Your task to perform on an android device: turn on improve location accuracy Image 0: 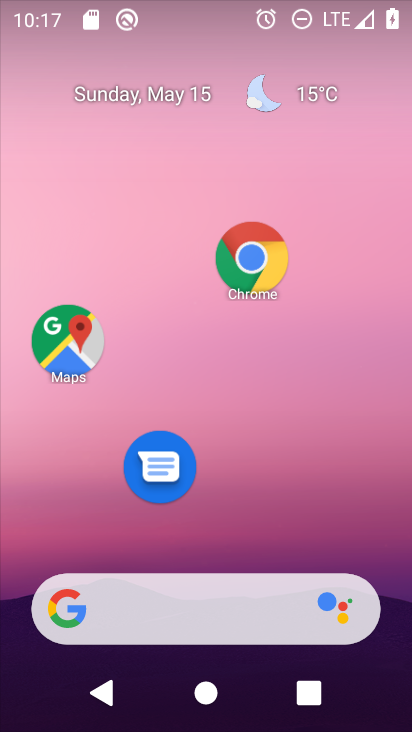
Step 0: drag from (236, 526) to (298, 25)
Your task to perform on an android device: turn on improve location accuracy Image 1: 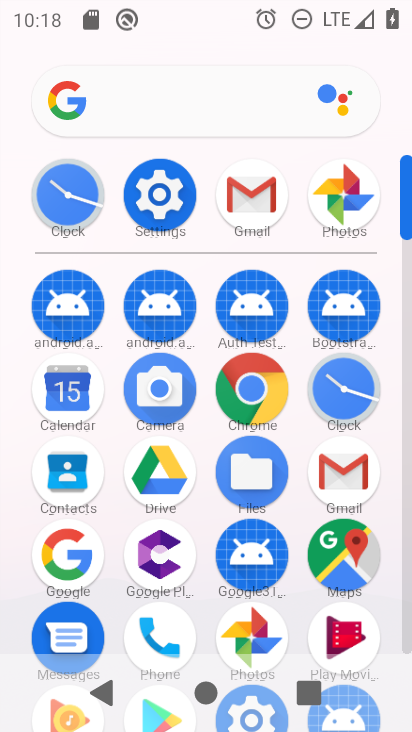
Step 1: click (140, 173)
Your task to perform on an android device: turn on improve location accuracy Image 2: 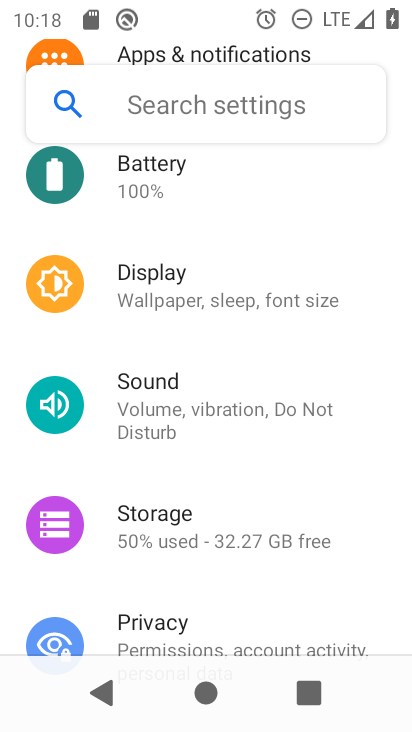
Step 2: drag from (229, 459) to (255, 232)
Your task to perform on an android device: turn on improve location accuracy Image 3: 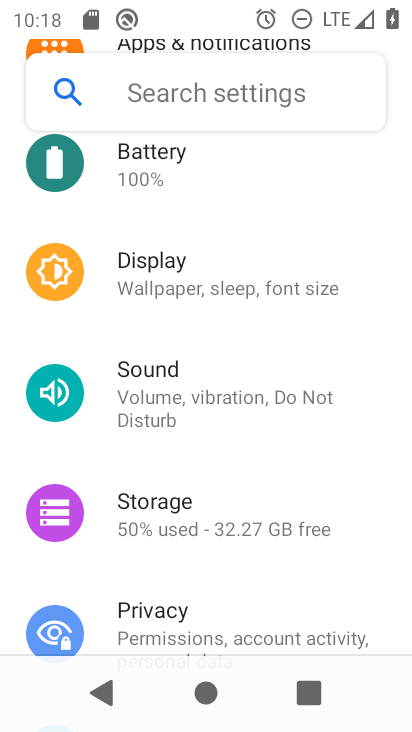
Step 3: drag from (156, 573) to (232, 195)
Your task to perform on an android device: turn on improve location accuracy Image 4: 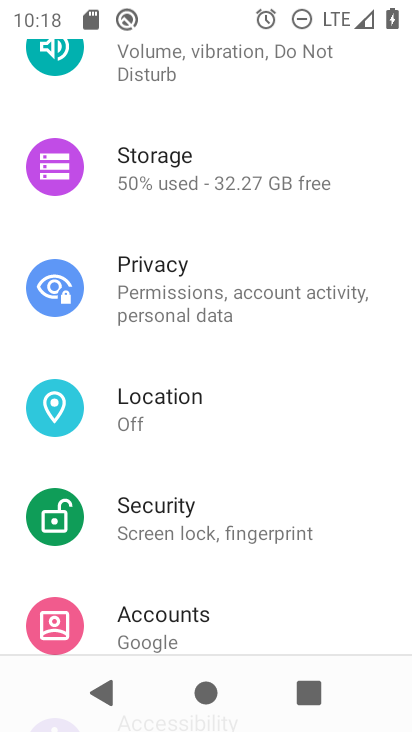
Step 4: click (192, 432)
Your task to perform on an android device: turn on improve location accuracy Image 5: 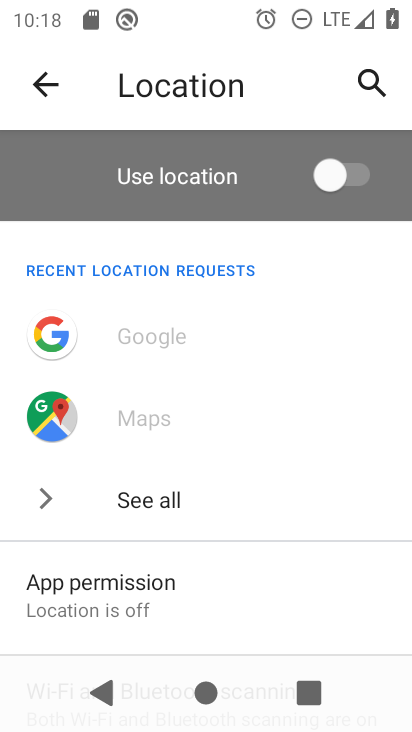
Step 5: drag from (134, 558) to (214, 120)
Your task to perform on an android device: turn on improve location accuracy Image 6: 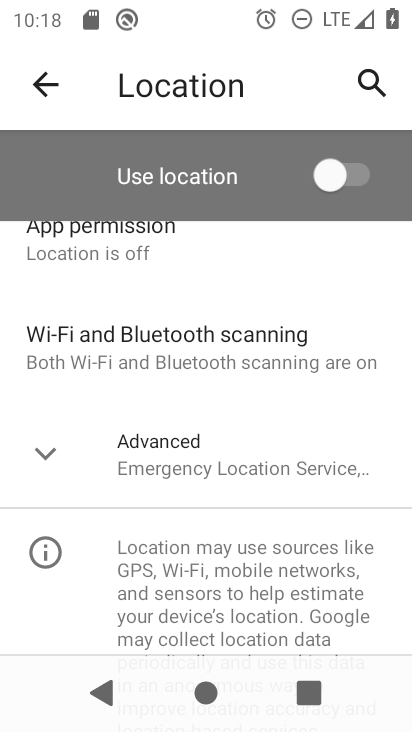
Step 6: click (242, 476)
Your task to perform on an android device: turn on improve location accuracy Image 7: 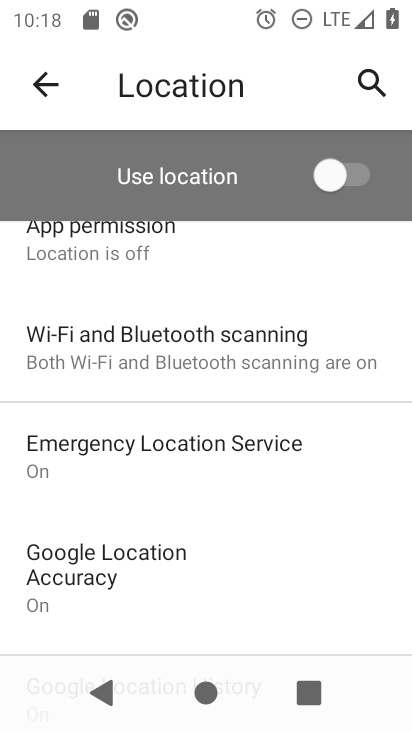
Step 7: click (203, 587)
Your task to perform on an android device: turn on improve location accuracy Image 8: 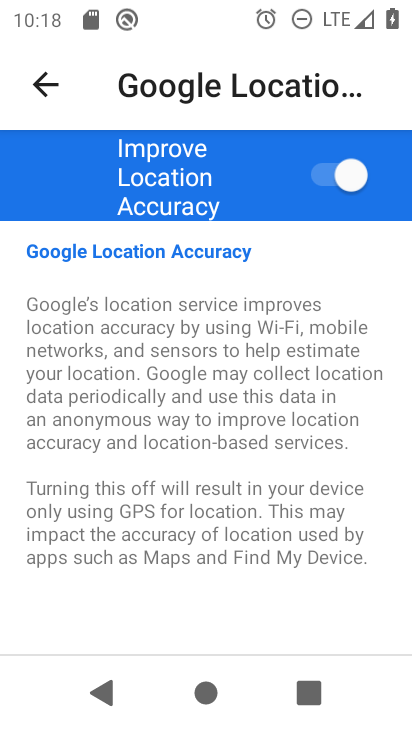
Step 8: task complete